Your task to perform on an android device: add a contact Image 0: 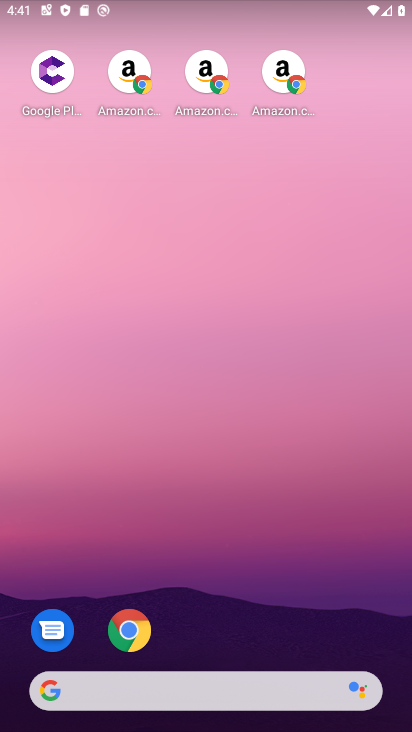
Step 0: drag from (342, 599) to (337, 50)
Your task to perform on an android device: add a contact Image 1: 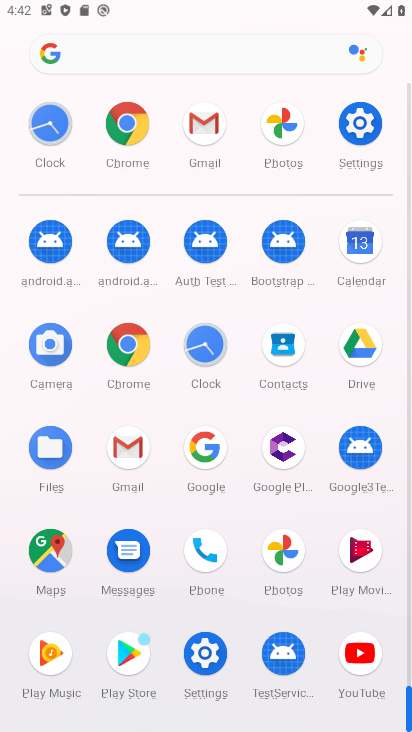
Step 1: drag from (15, 554) to (13, 266)
Your task to perform on an android device: add a contact Image 2: 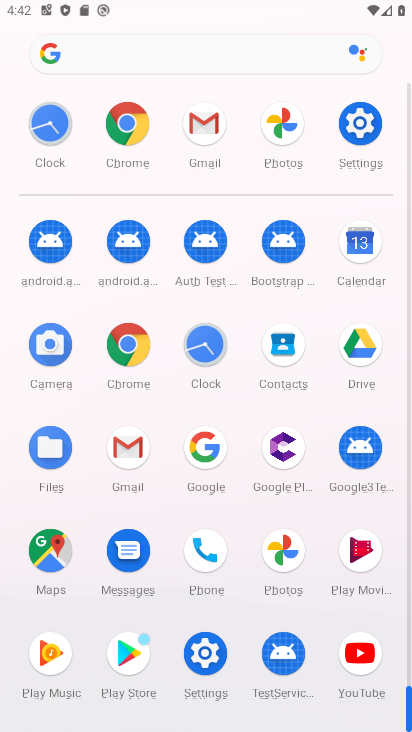
Step 2: click (205, 550)
Your task to perform on an android device: add a contact Image 3: 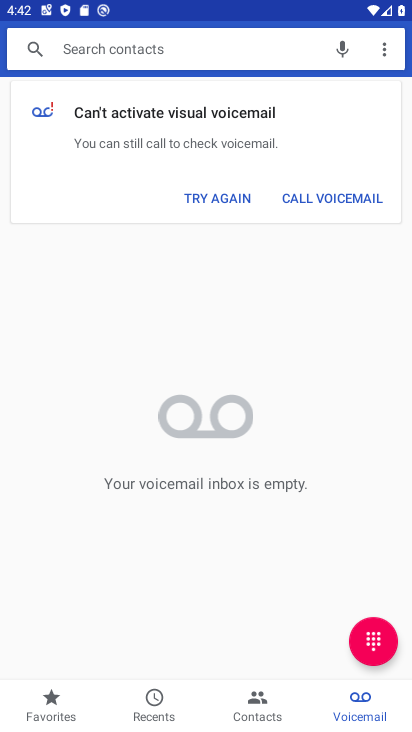
Step 3: click (244, 713)
Your task to perform on an android device: add a contact Image 4: 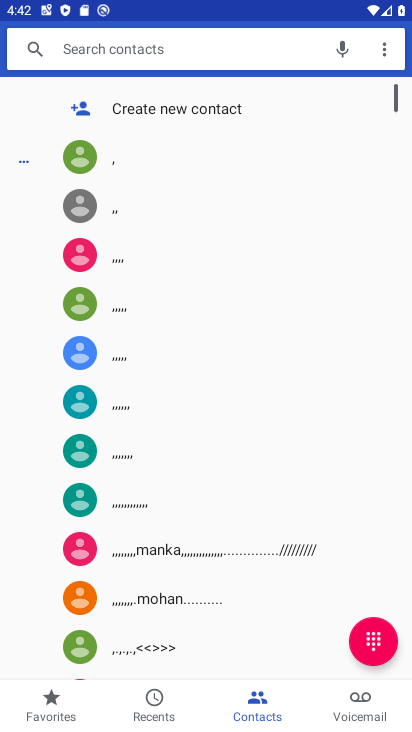
Step 4: click (160, 113)
Your task to perform on an android device: add a contact Image 5: 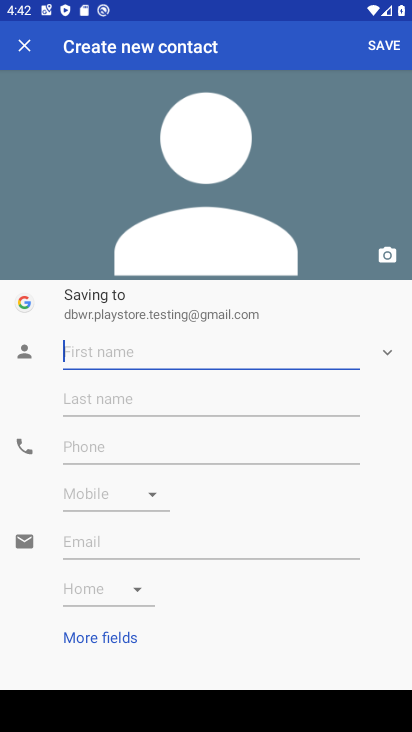
Step 5: type "CVBNM"
Your task to perform on an android device: add a contact Image 6: 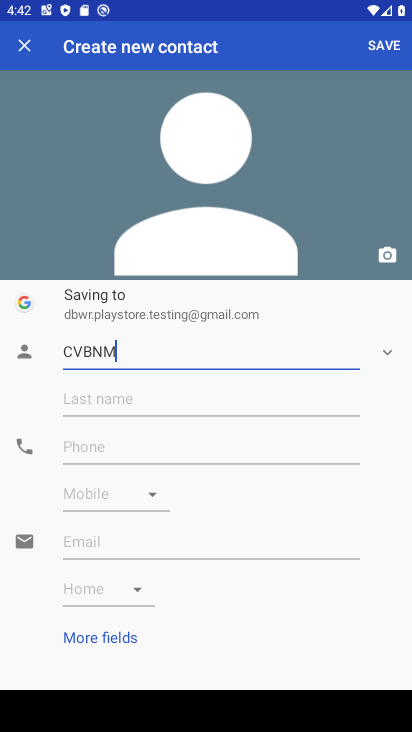
Step 6: type ""
Your task to perform on an android device: add a contact Image 7: 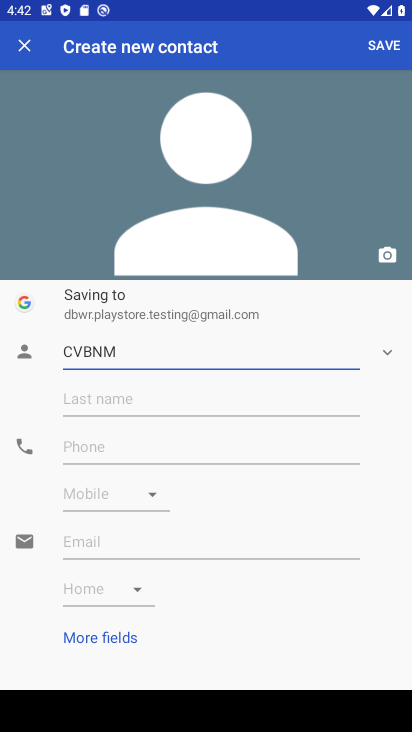
Step 7: click (99, 448)
Your task to perform on an android device: add a contact Image 8: 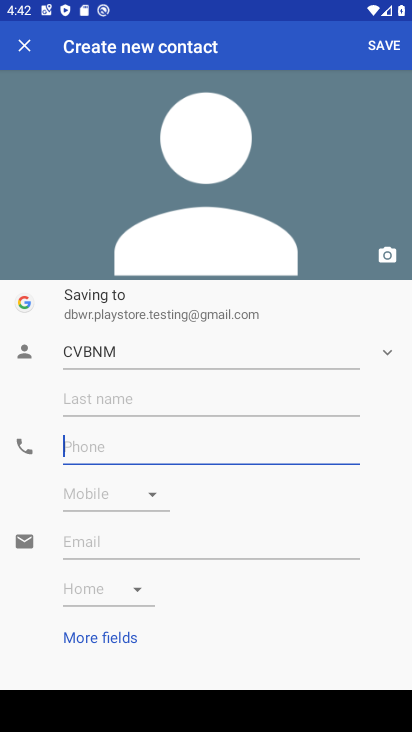
Step 8: type ")9876456789"
Your task to perform on an android device: add a contact Image 9: 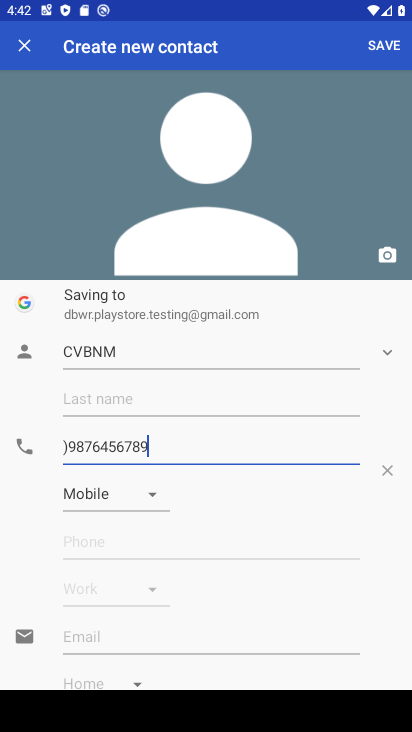
Step 9: type ""
Your task to perform on an android device: add a contact Image 10: 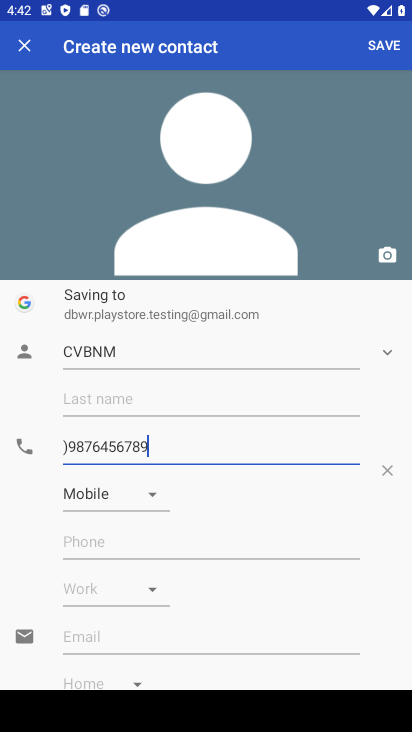
Step 10: click (385, 37)
Your task to perform on an android device: add a contact Image 11: 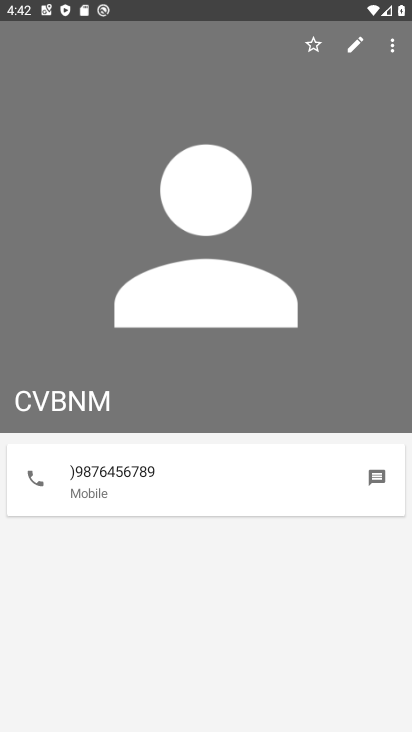
Step 11: task complete